Your task to perform on an android device: open chrome and create a bookmark for the current page Image 0: 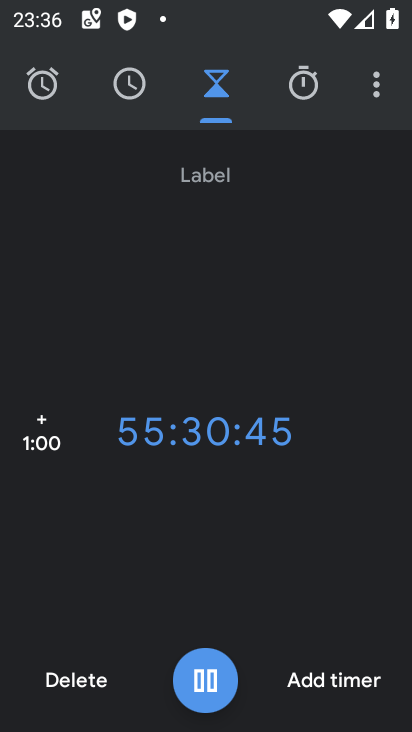
Step 0: press home button
Your task to perform on an android device: open chrome and create a bookmark for the current page Image 1: 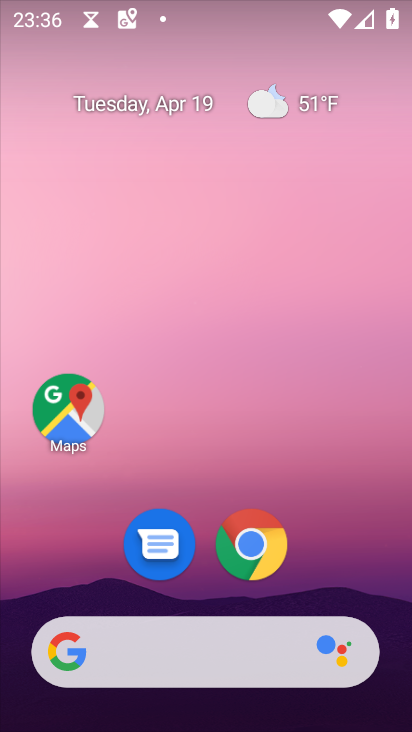
Step 1: click (246, 552)
Your task to perform on an android device: open chrome and create a bookmark for the current page Image 2: 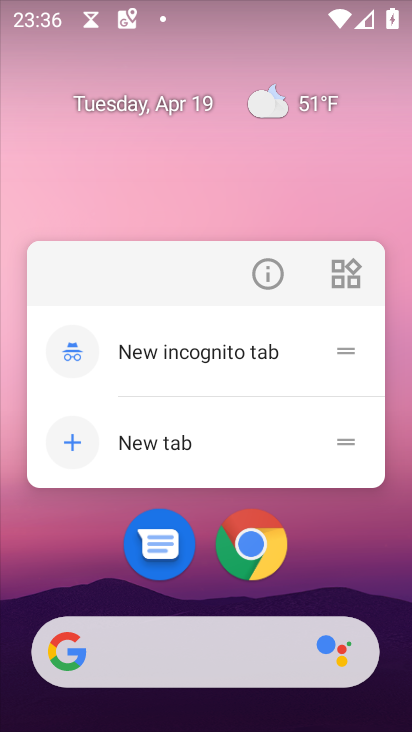
Step 2: click (246, 552)
Your task to perform on an android device: open chrome and create a bookmark for the current page Image 3: 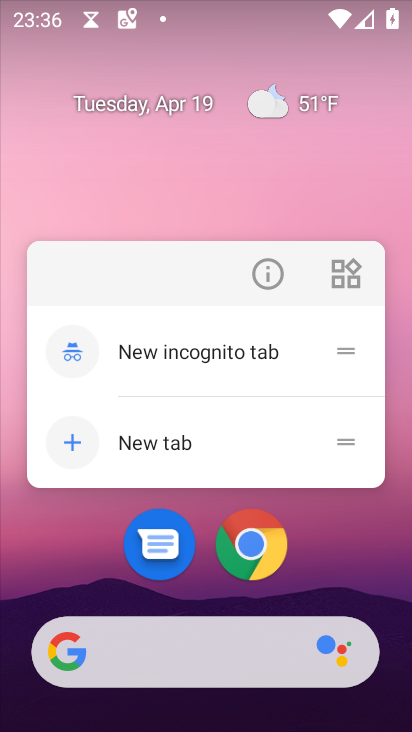
Step 3: click (247, 548)
Your task to perform on an android device: open chrome and create a bookmark for the current page Image 4: 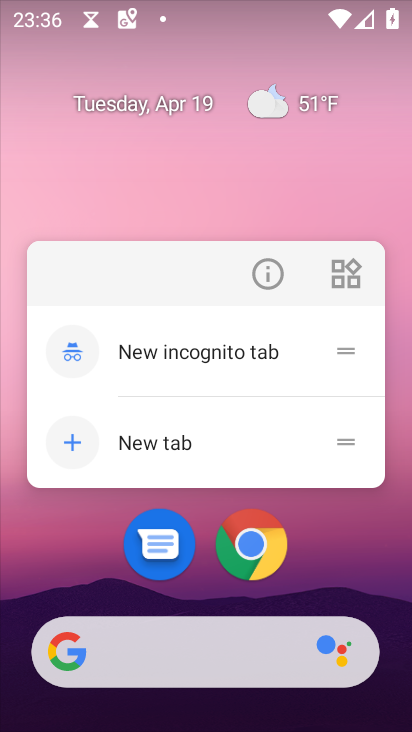
Step 4: click (250, 541)
Your task to perform on an android device: open chrome and create a bookmark for the current page Image 5: 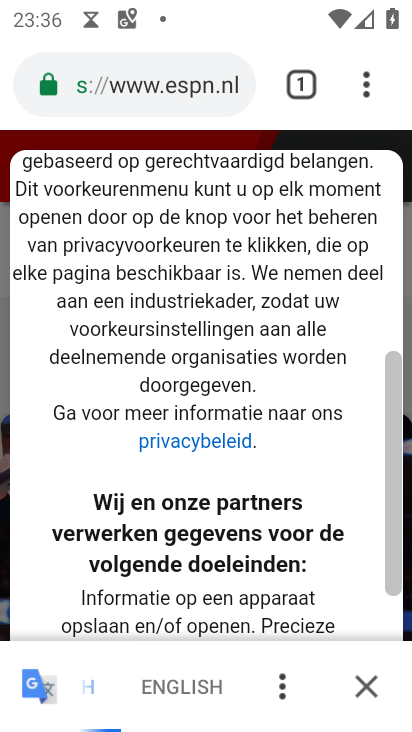
Step 5: click (370, 86)
Your task to perform on an android device: open chrome and create a bookmark for the current page Image 6: 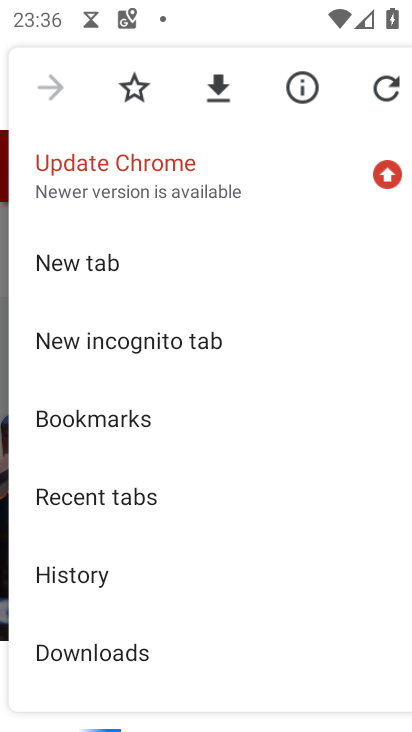
Step 6: click (136, 94)
Your task to perform on an android device: open chrome and create a bookmark for the current page Image 7: 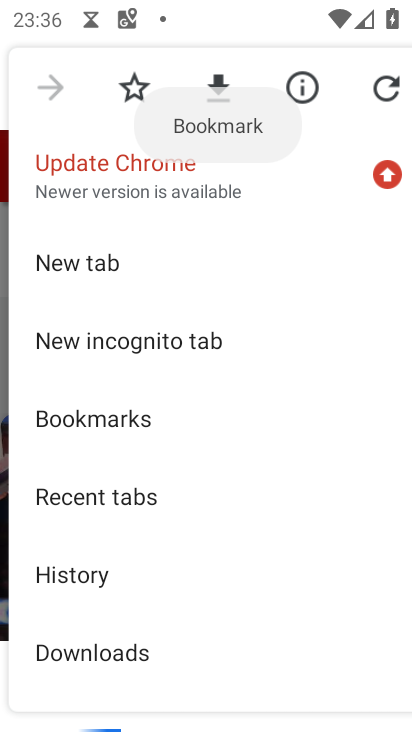
Step 7: click (131, 91)
Your task to perform on an android device: open chrome and create a bookmark for the current page Image 8: 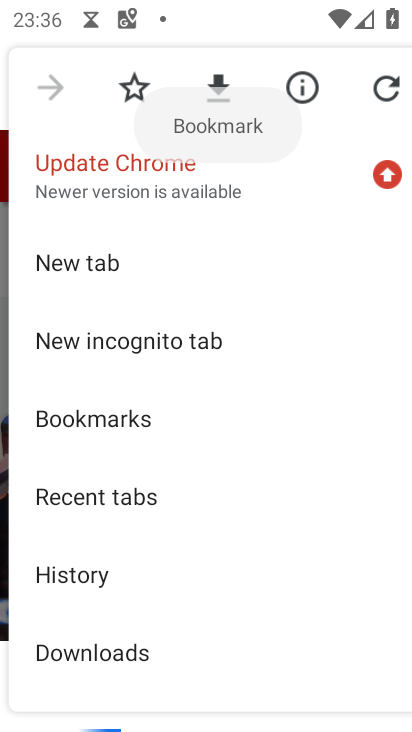
Step 8: click (130, 88)
Your task to perform on an android device: open chrome and create a bookmark for the current page Image 9: 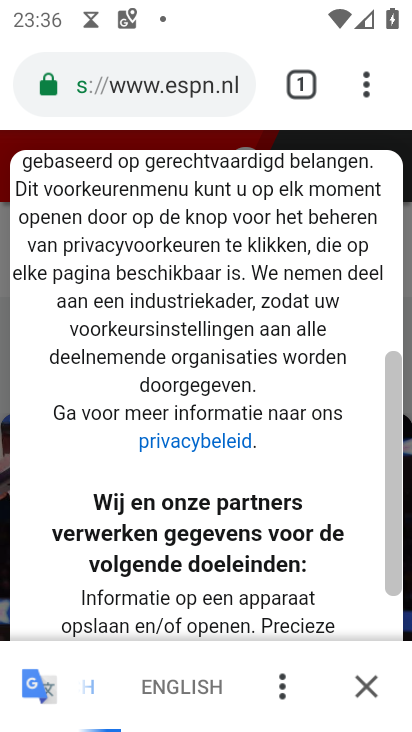
Step 9: task complete